Your task to perform on an android device: Open calendar and show me the third week of next month Image 0: 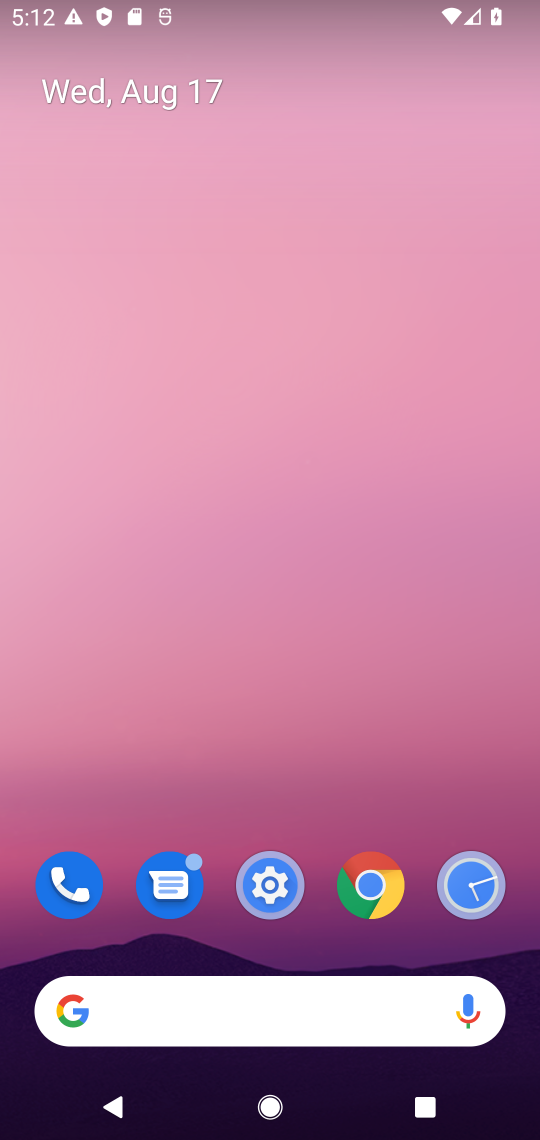
Step 0: click (142, 92)
Your task to perform on an android device: Open calendar and show me the third week of next month Image 1: 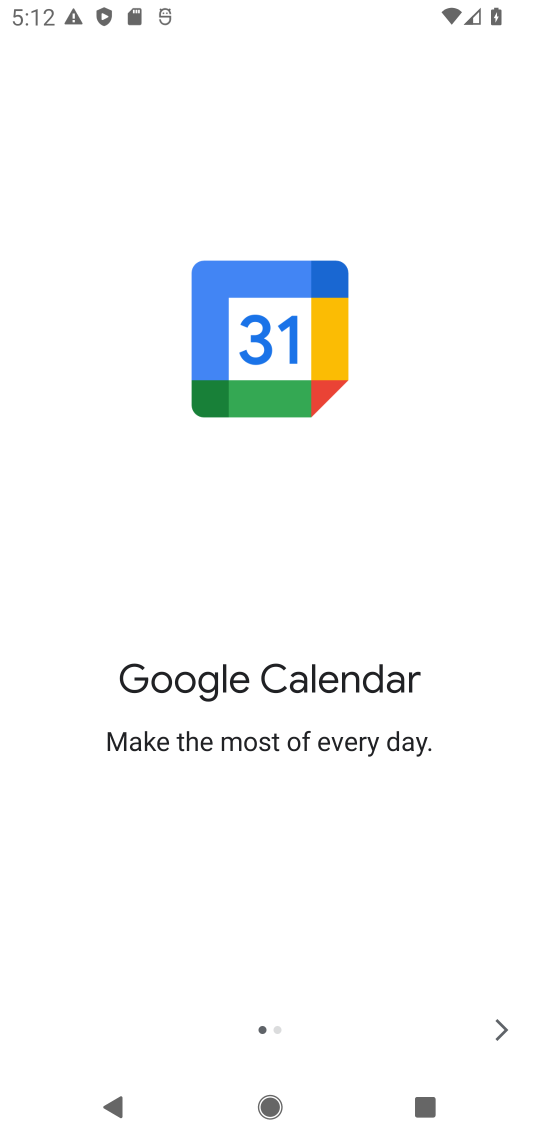
Step 1: click (512, 1033)
Your task to perform on an android device: Open calendar and show me the third week of next month Image 2: 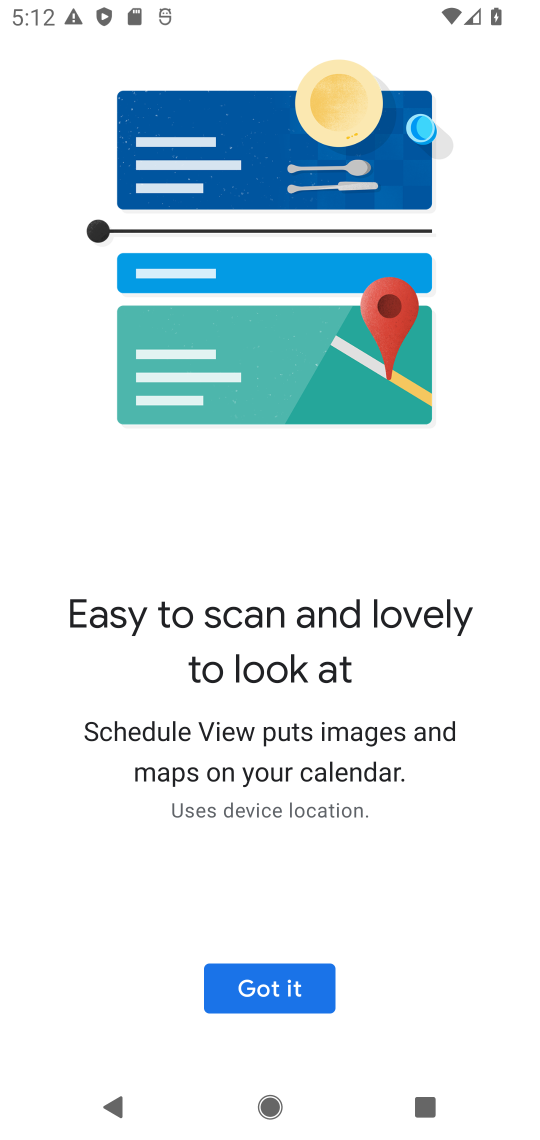
Step 2: click (279, 954)
Your task to perform on an android device: Open calendar and show me the third week of next month Image 3: 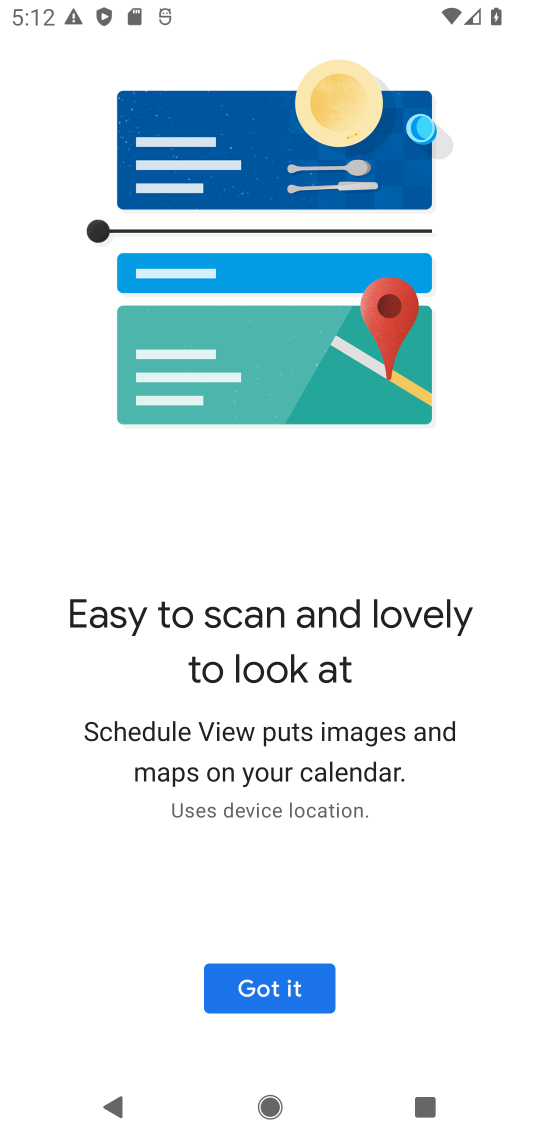
Step 3: click (312, 979)
Your task to perform on an android device: Open calendar and show me the third week of next month Image 4: 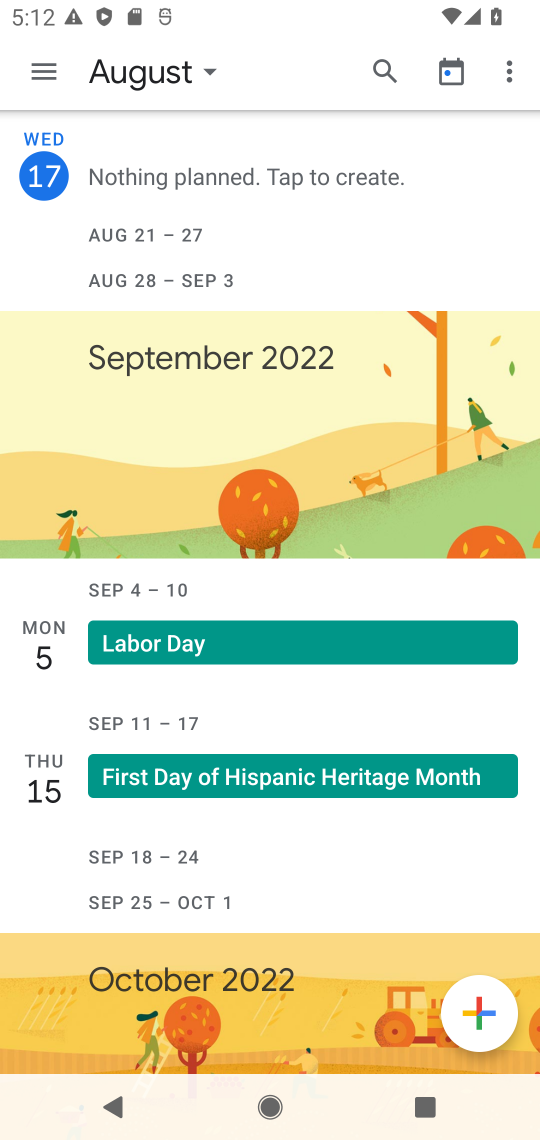
Step 4: click (136, 83)
Your task to perform on an android device: Open calendar and show me the third week of next month Image 5: 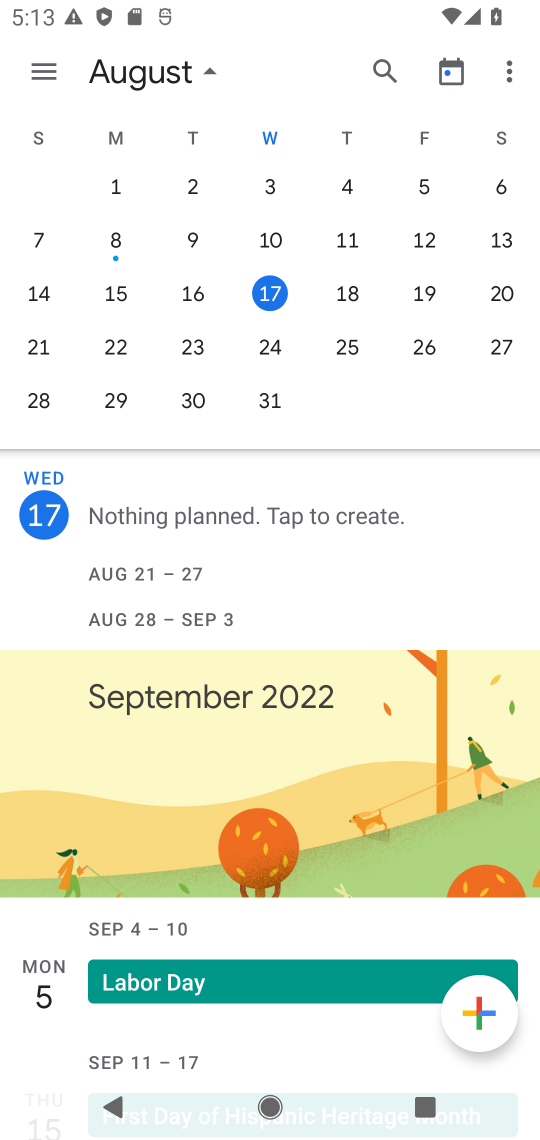
Step 5: drag from (456, 312) to (76, 285)
Your task to perform on an android device: Open calendar and show me the third week of next month Image 6: 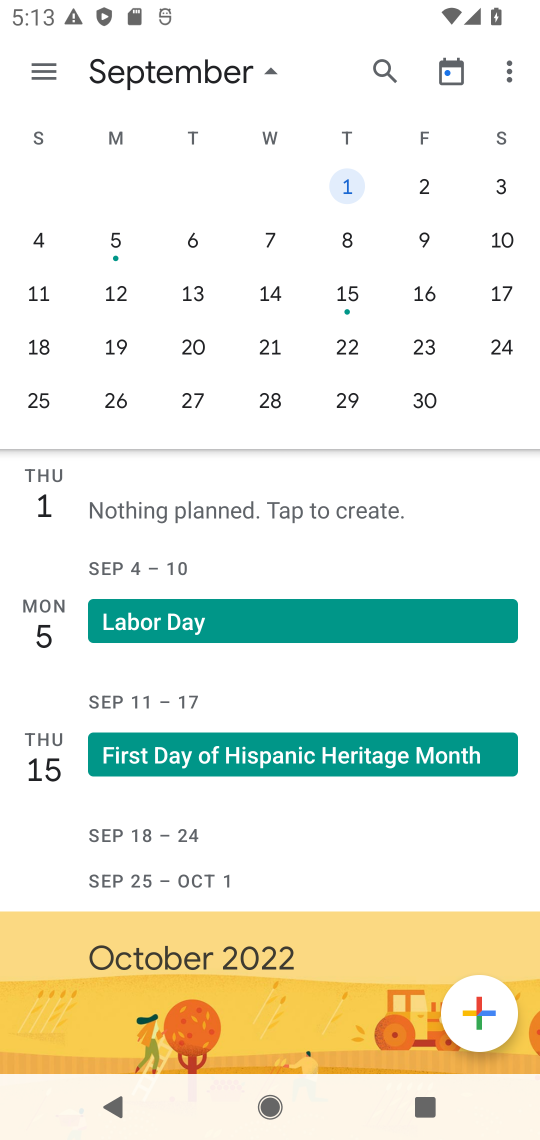
Step 6: click (189, 336)
Your task to perform on an android device: Open calendar and show me the third week of next month Image 7: 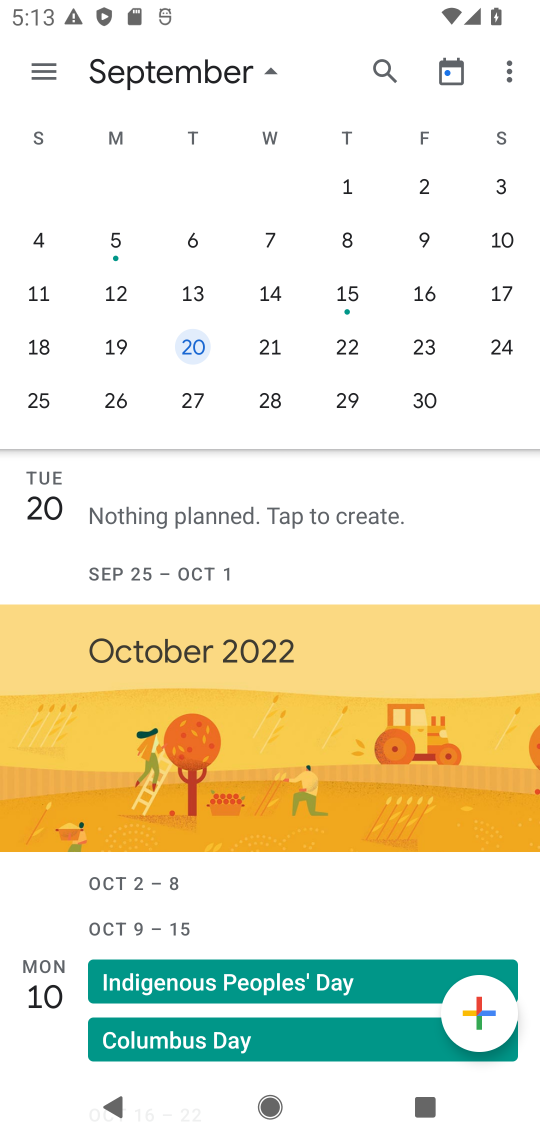
Step 7: click (47, 74)
Your task to perform on an android device: Open calendar and show me the third week of next month Image 8: 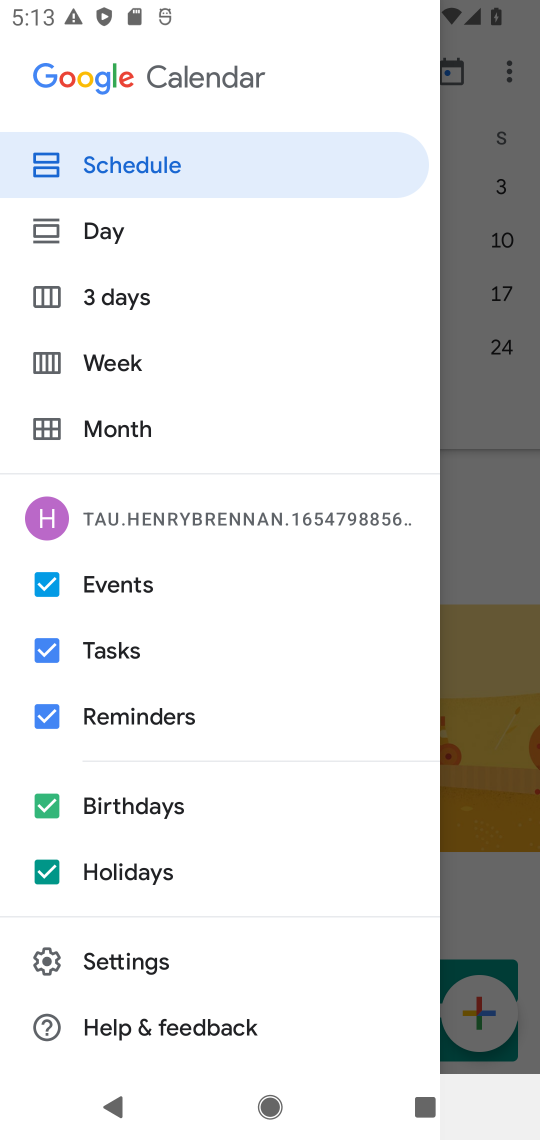
Step 8: click (145, 368)
Your task to perform on an android device: Open calendar and show me the third week of next month Image 9: 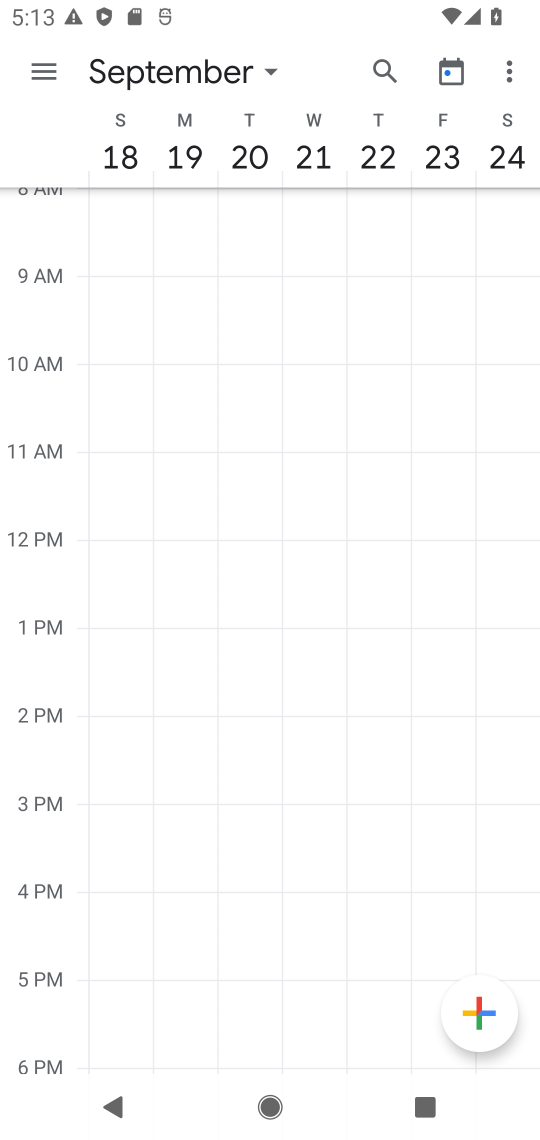
Step 9: task complete